Your task to perform on an android device: turn off improve location accuracy Image 0: 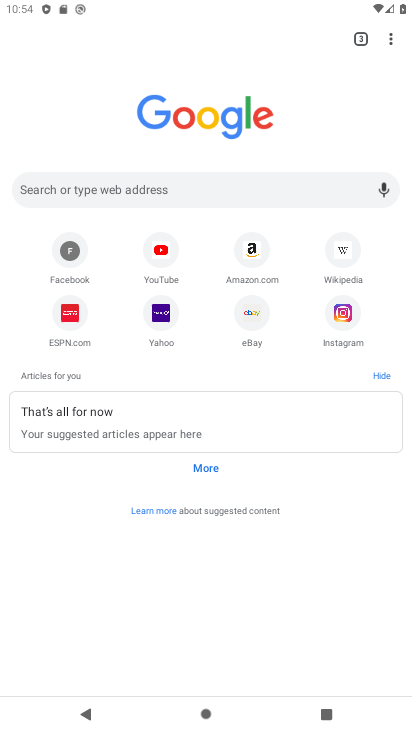
Step 0: press home button
Your task to perform on an android device: turn off improve location accuracy Image 1: 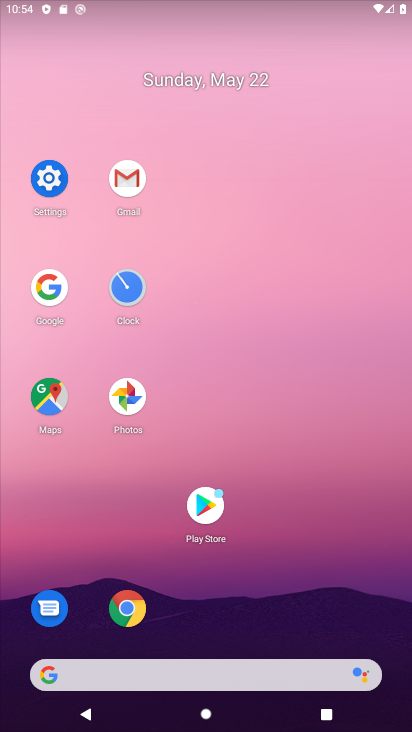
Step 1: click (58, 191)
Your task to perform on an android device: turn off improve location accuracy Image 2: 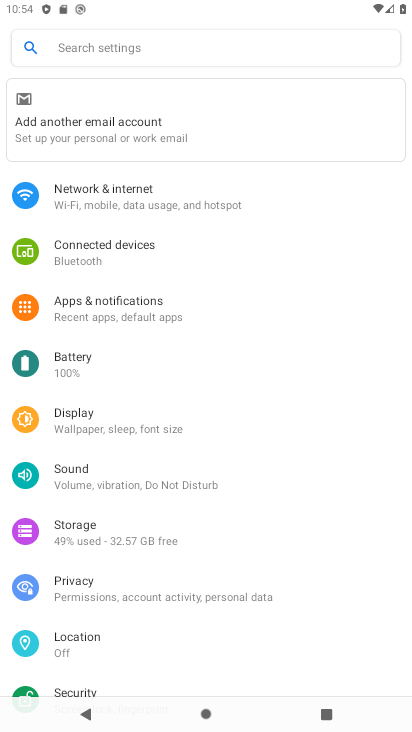
Step 2: click (100, 635)
Your task to perform on an android device: turn off improve location accuracy Image 3: 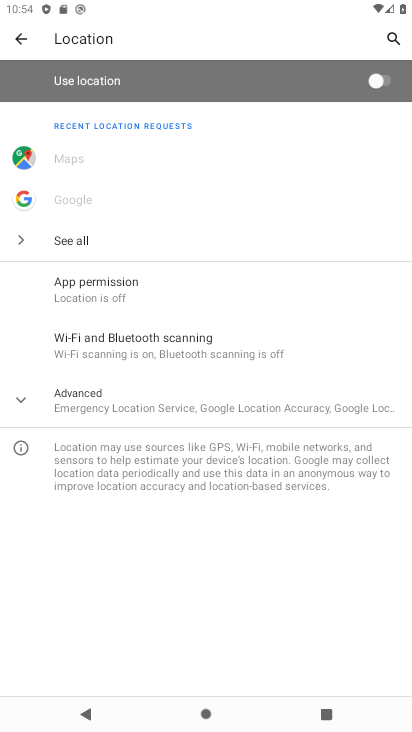
Step 3: click (111, 400)
Your task to perform on an android device: turn off improve location accuracy Image 4: 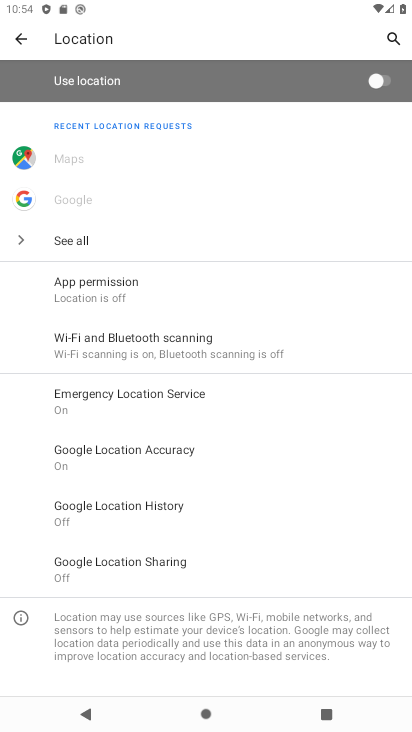
Step 4: click (173, 451)
Your task to perform on an android device: turn off improve location accuracy Image 5: 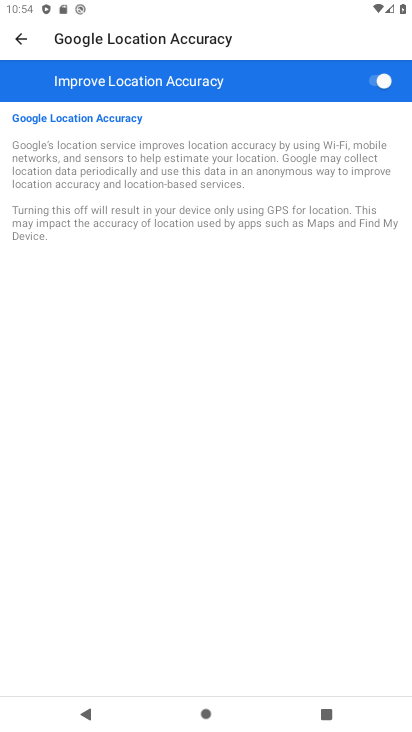
Step 5: click (385, 76)
Your task to perform on an android device: turn off improve location accuracy Image 6: 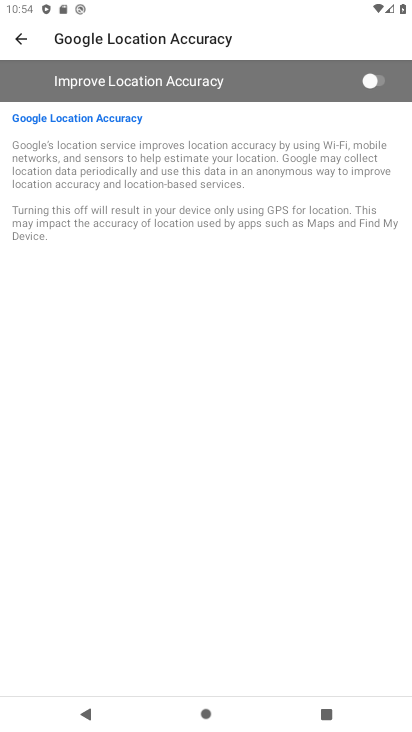
Step 6: task complete